Your task to perform on an android device: toggle airplane mode Image 0: 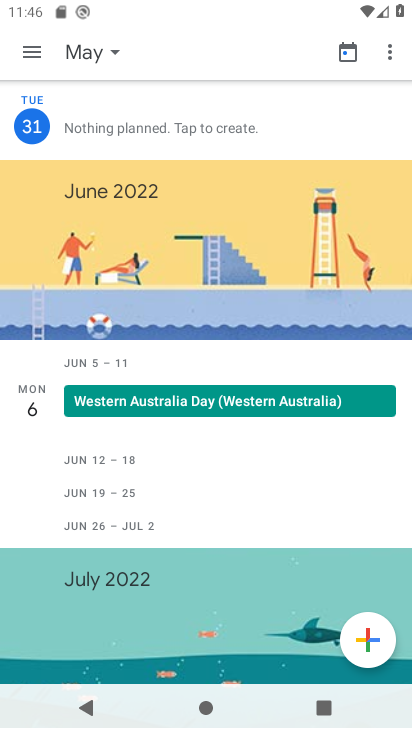
Step 0: press home button
Your task to perform on an android device: toggle airplane mode Image 1: 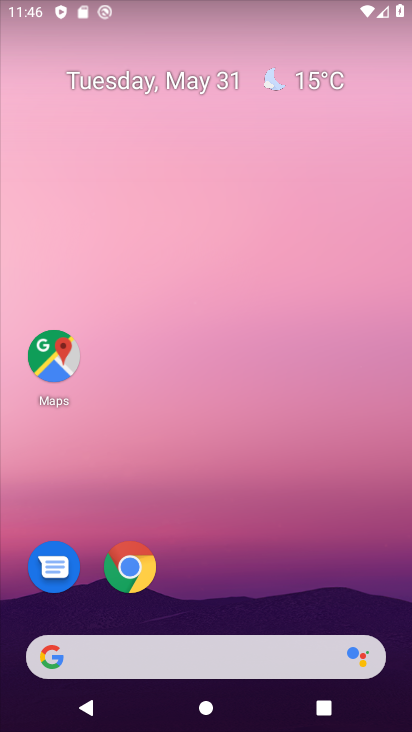
Step 1: drag from (245, 598) to (236, 210)
Your task to perform on an android device: toggle airplane mode Image 2: 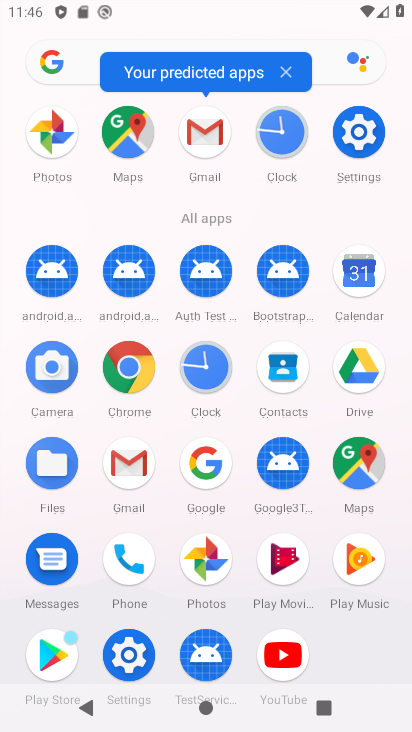
Step 2: click (356, 148)
Your task to perform on an android device: toggle airplane mode Image 3: 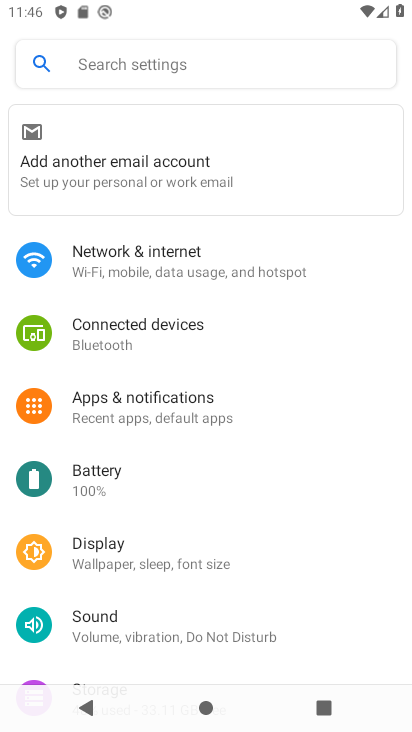
Step 3: click (262, 258)
Your task to perform on an android device: toggle airplane mode Image 4: 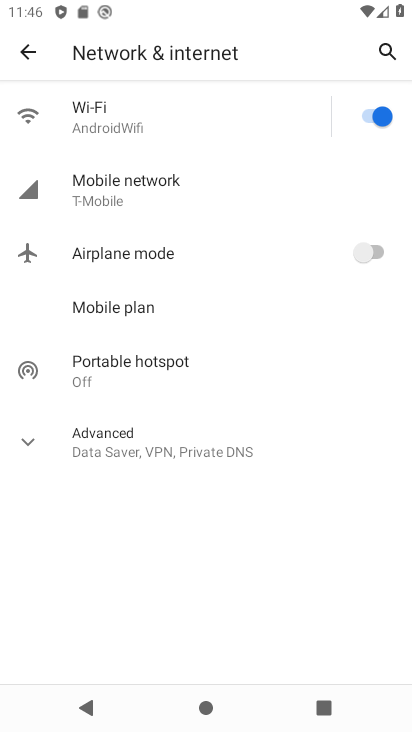
Step 4: click (391, 265)
Your task to perform on an android device: toggle airplane mode Image 5: 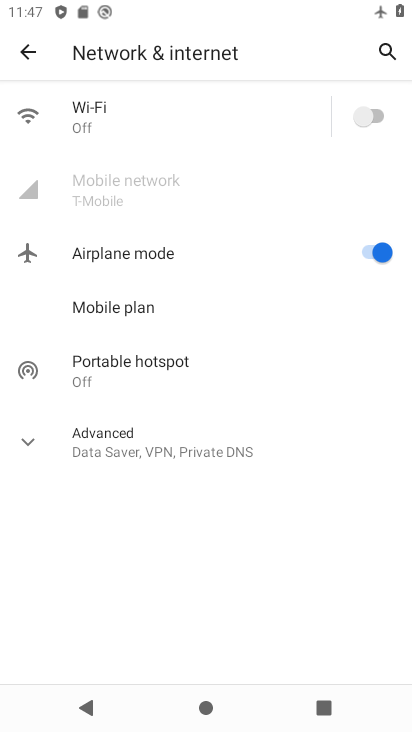
Step 5: task complete